Your task to perform on an android device: Open the web browser Image 0: 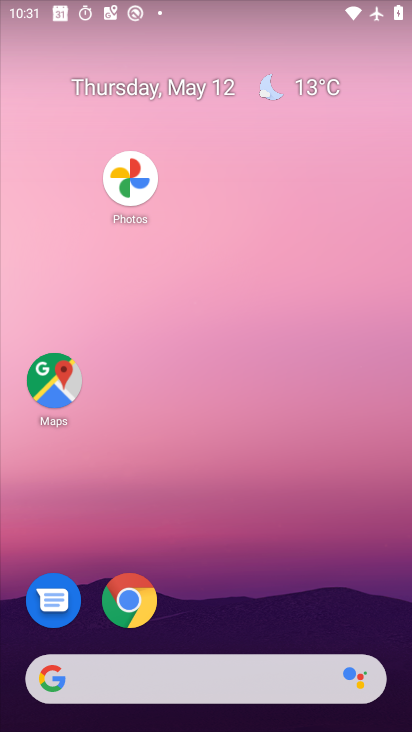
Step 0: click (170, 182)
Your task to perform on an android device: Open the web browser Image 1: 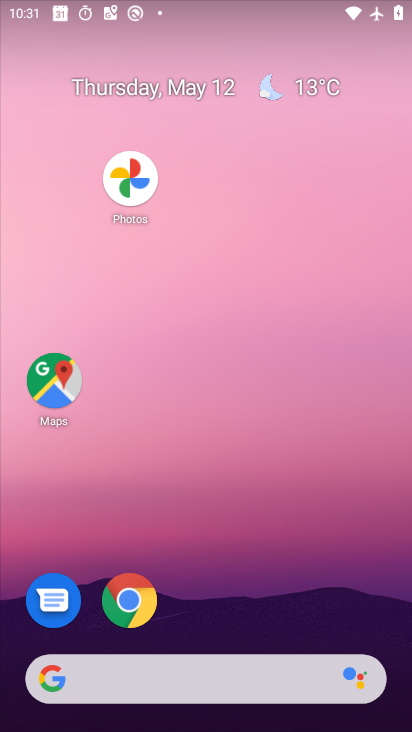
Step 1: drag from (261, 570) to (167, 63)
Your task to perform on an android device: Open the web browser Image 2: 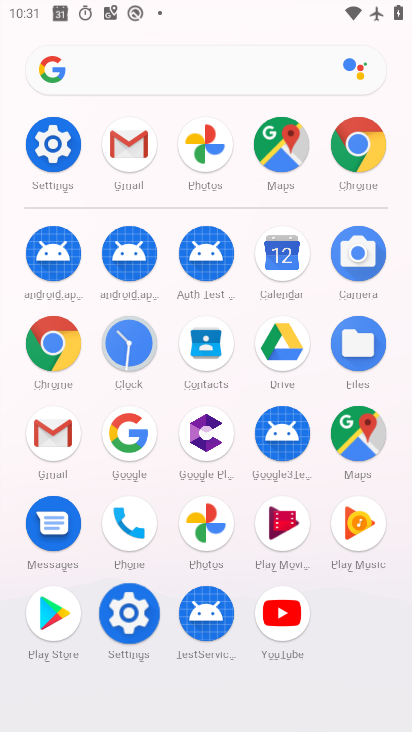
Step 2: click (349, 152)
Your task to perform on an android device: Open the web browser Image 3: 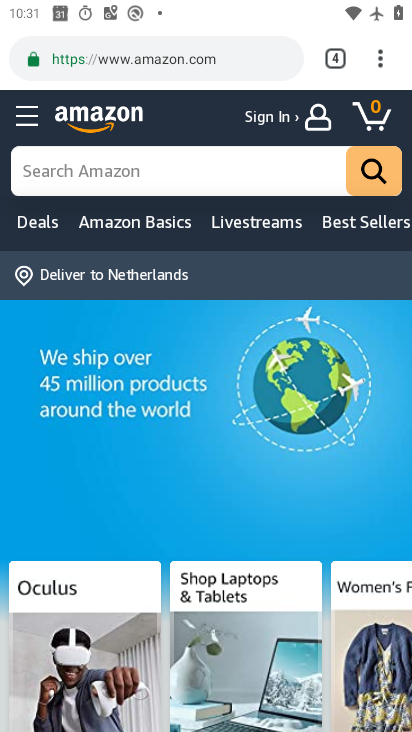
Step 3: drag from (378, 63) to (152, 128)
Your task to perform on an android device: Open the web browser Image 4: 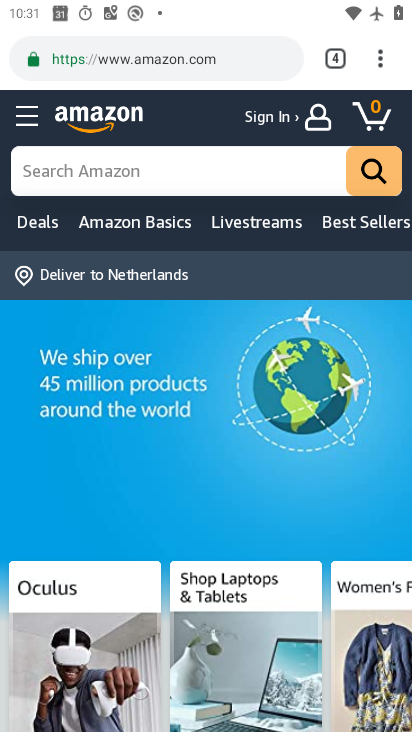
Step 4: click (152, 127)
Your task to perform on an android device: Open the web browser Image 5: 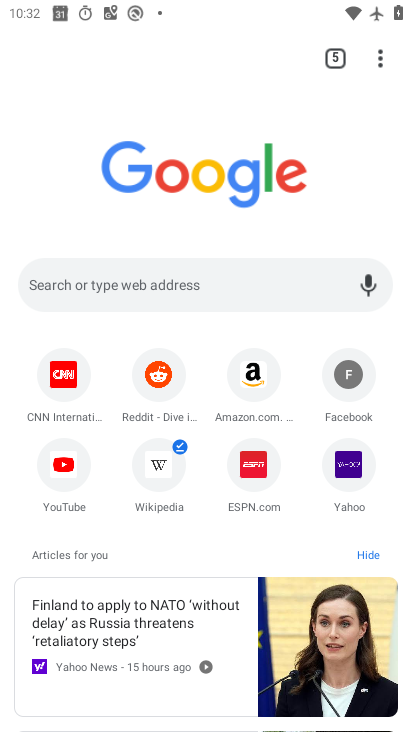
Step 5: task complete